Your task to perform on an android device: Go to ESPN.com Image 0: 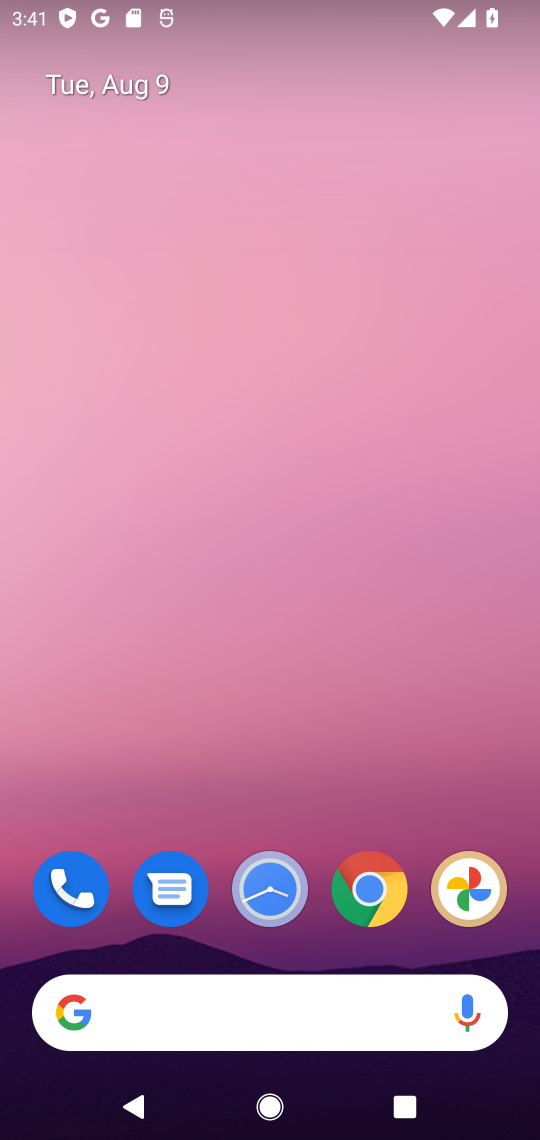
Step 0: click (249, 1021)
Your task to perform on an android device: Go to ESPN.com Image 1: 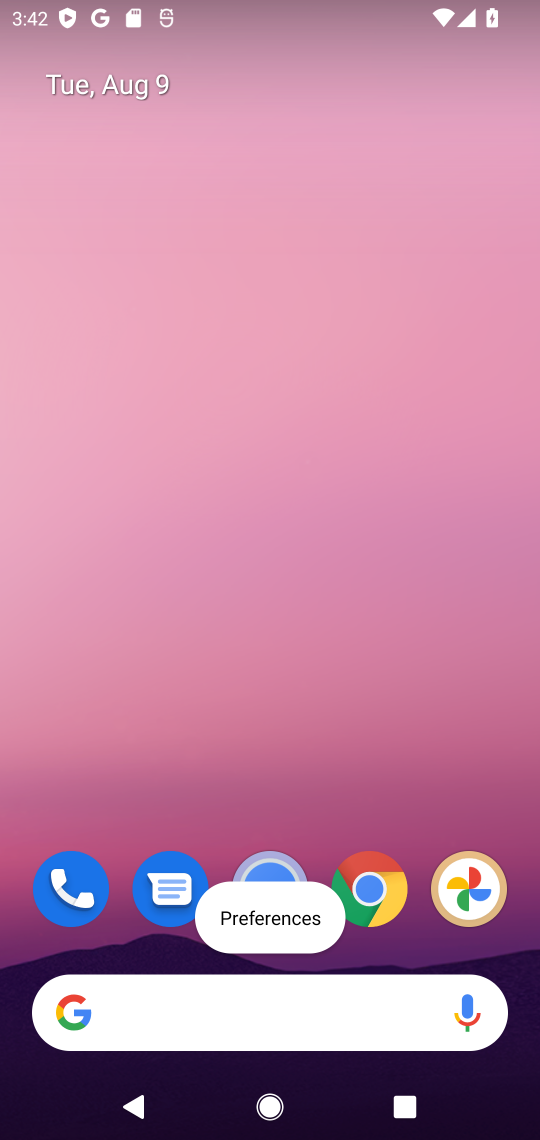
Step 1: click (251, 1021)
Your task to perform on an android device: Go to ESPN.com Image 2: 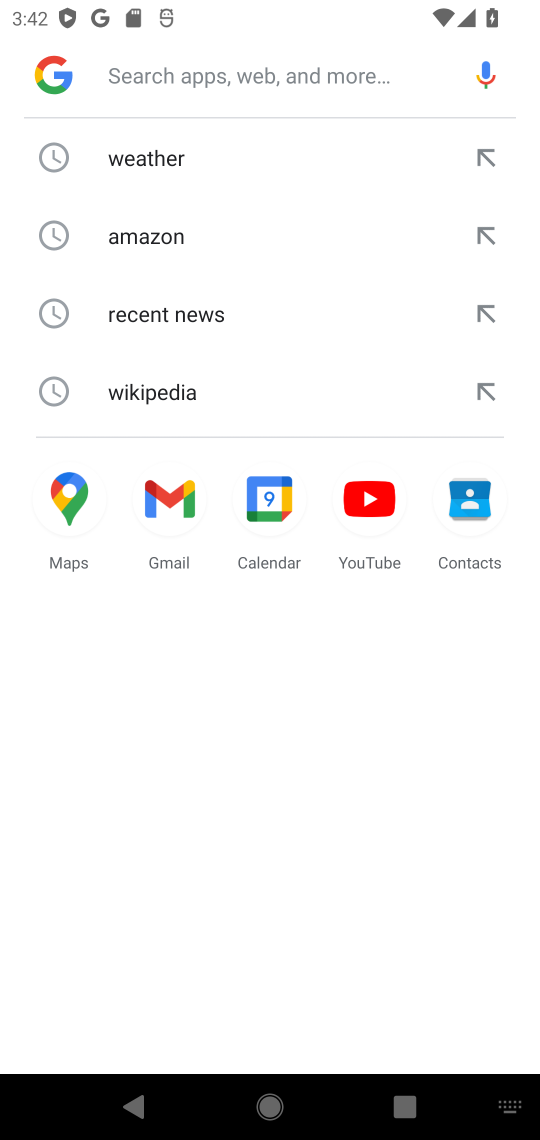
Step 2: type "espn.com"
Your task to perform on an android device: Go to ESPN.com Image 3: 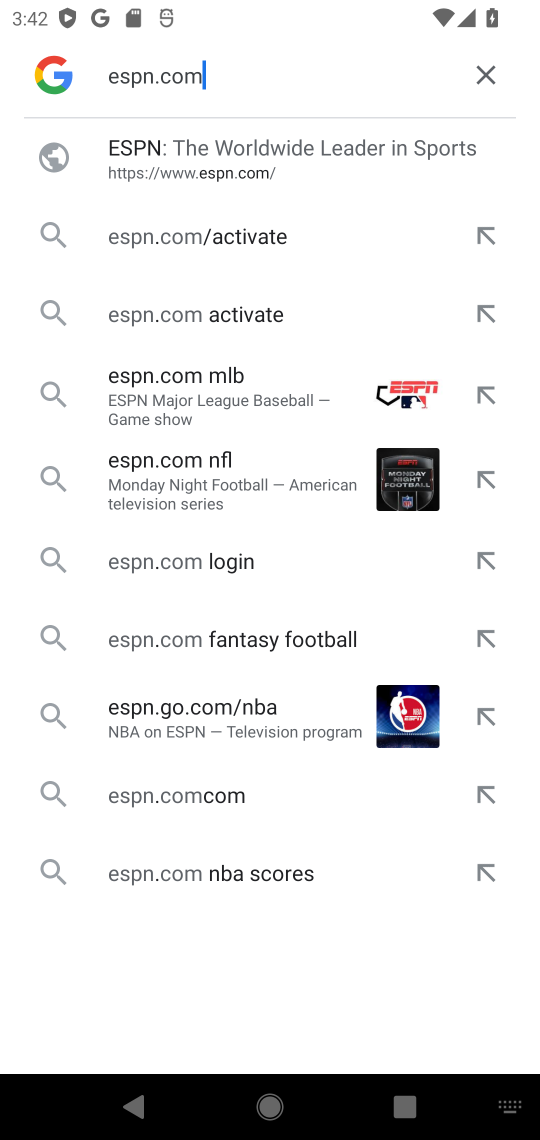
Step 3: click (308, 156)
Your task to perform on an android device: Go to ESPN.com Image 4: 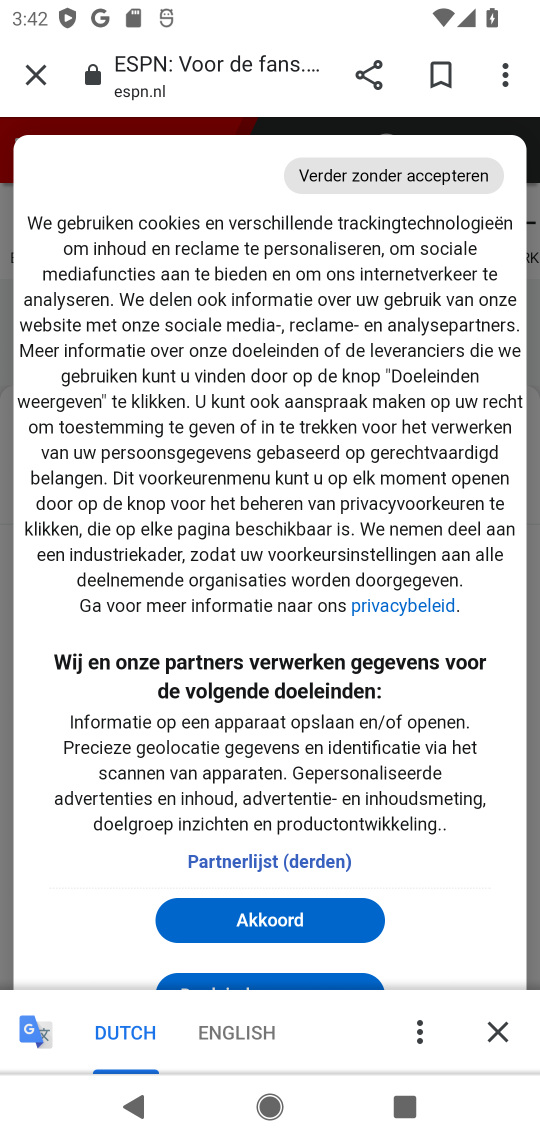
Step 4: click (250, 1035)
Your task to perform on an android device: Go to ESPN.com Image 5: 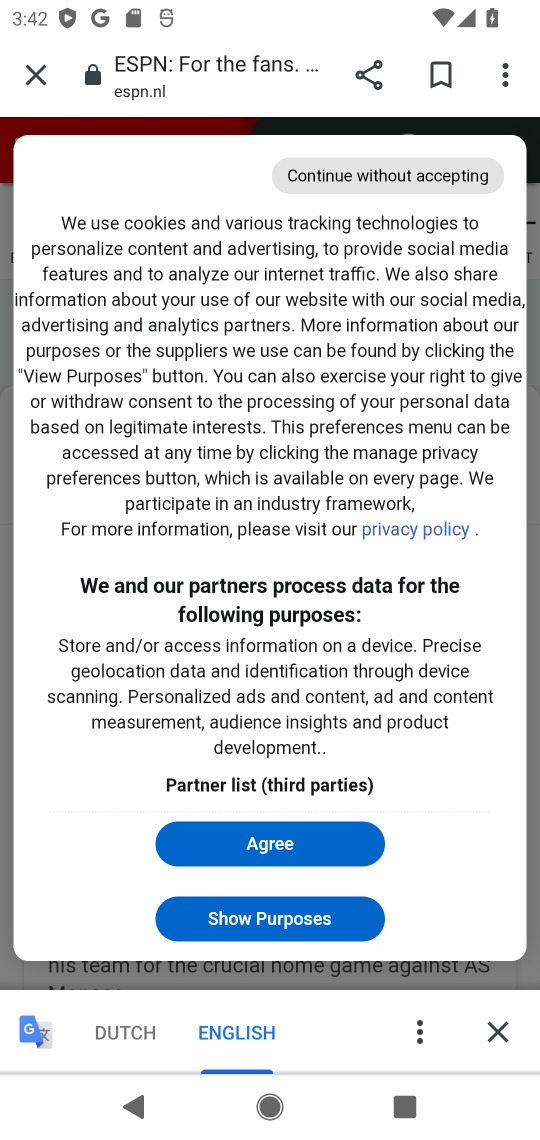
Step 5: click (269, 840)
Your task to perform on an android device: Go to ESPN.com Image 6: 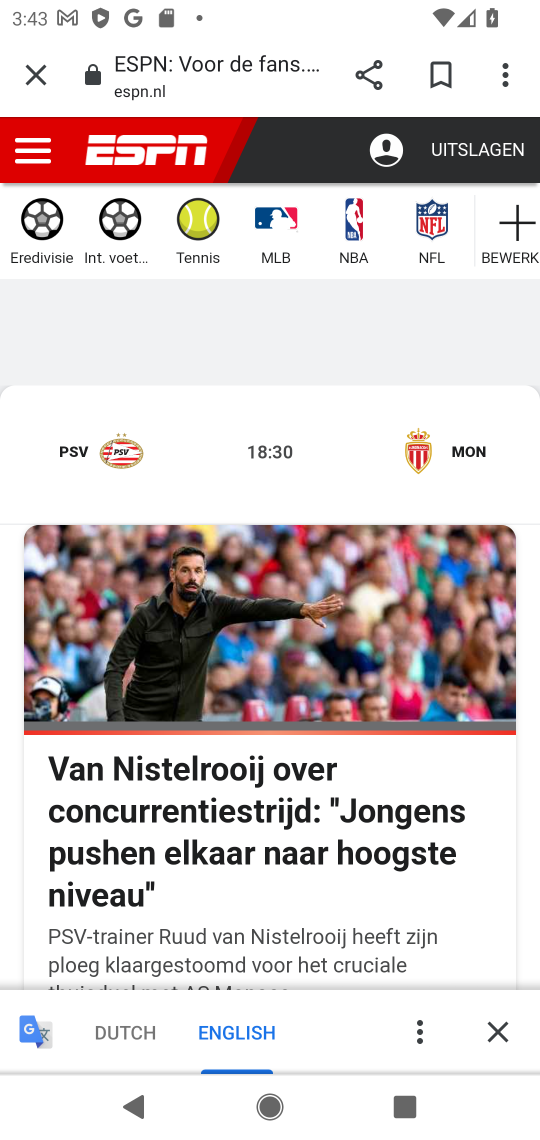
Step 6: task complete